Your task to perform on an android device: toggle data saver in the chrome app Image 0: 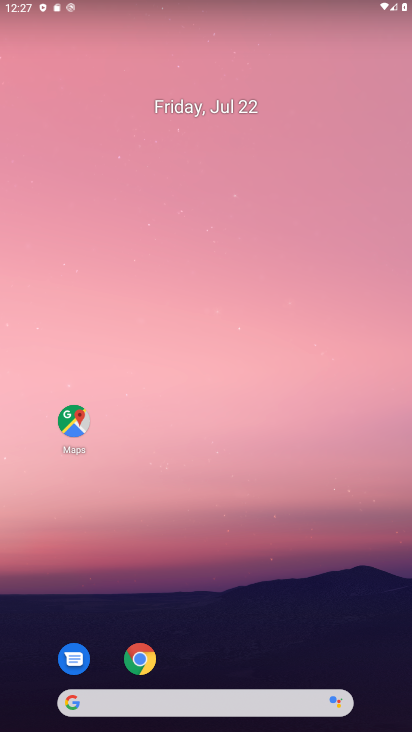
Step 0: click (149, 653)
Your task to perform on an android device: toggle data saver in the chrome app Image 1: 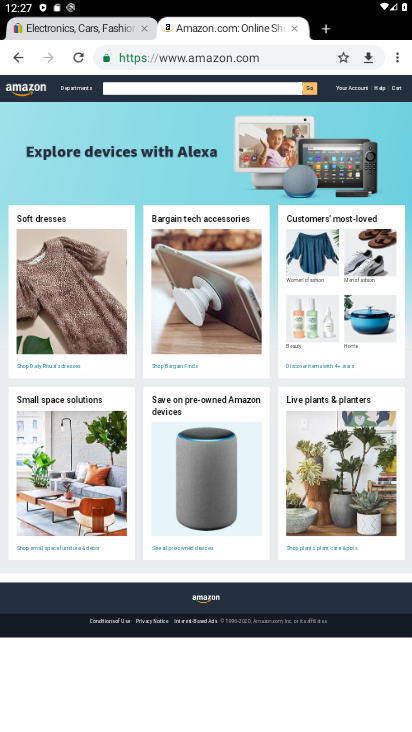
Step 1: task complete